Your task to perform on an android device: Open display settings Image 0: 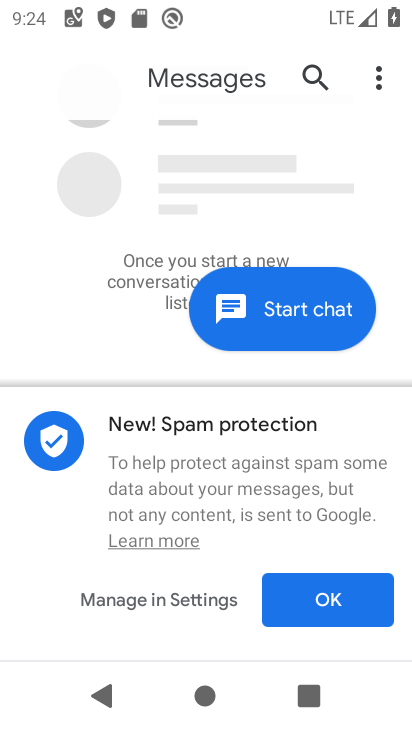
Step 0: press home button
Your task to perform on an android device: Open display settings Image 1: 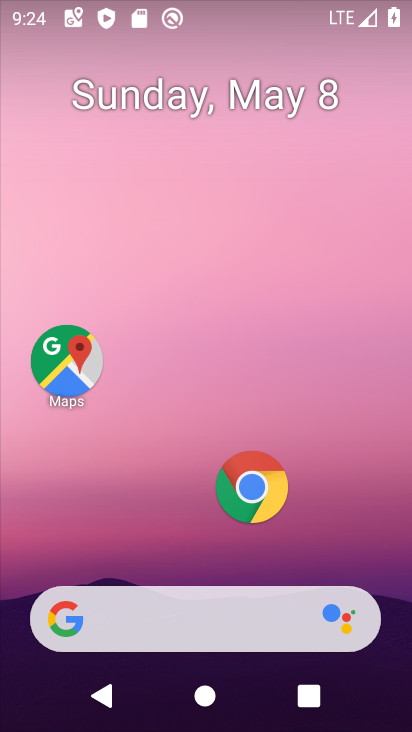
Step 1: drag from (163, 530) to (185, 38)
Your task to perform on an android device: Open display settings Image 2: 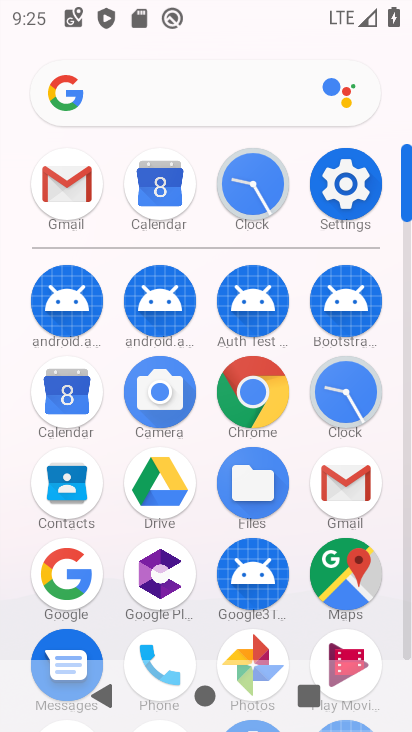
Step 2: click (334, 174)
Your task to perform on an android device: Open display settings Image 3: 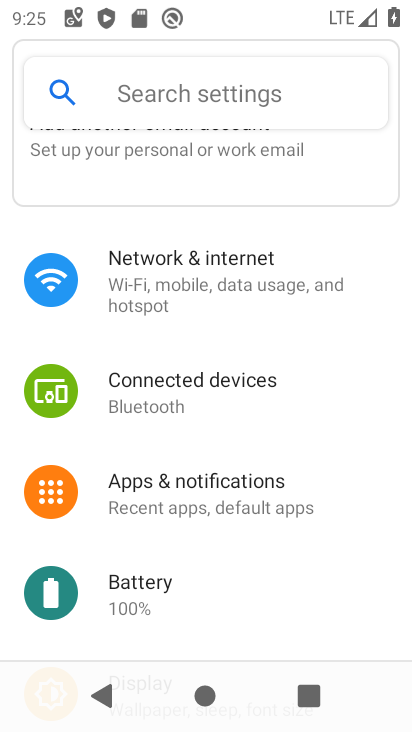
Step 3: drag from (231, 574) to (256, 187)
Your task to perform on an android device: Open display settings Image 4: 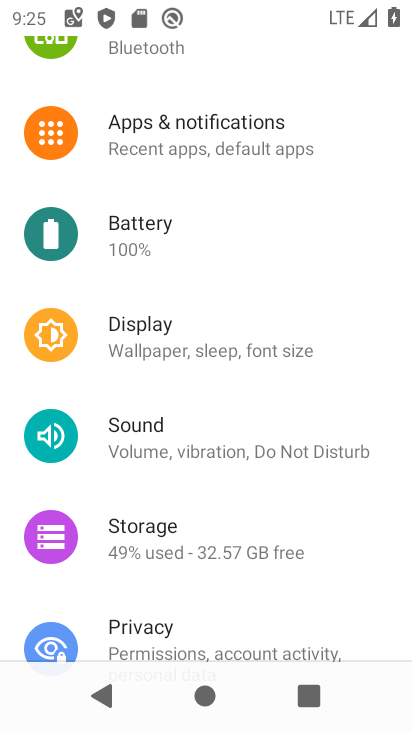
Step 4: click (212, 332)
Your task to perform on an android device: Open display settings Image 5: 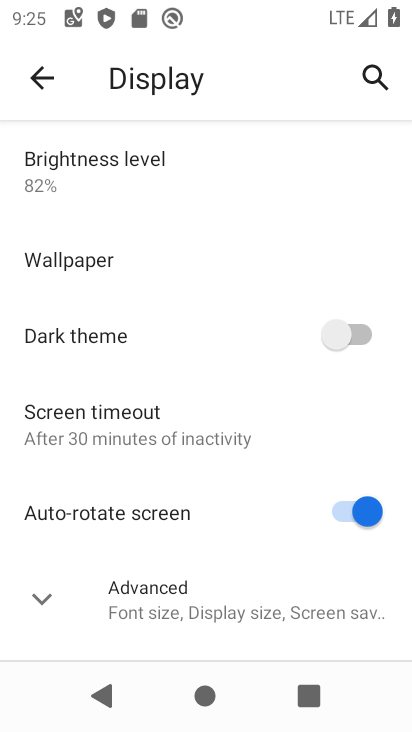
Step 5: task complete